Your task to perform on an android device: Go to wifi settings Image 0: 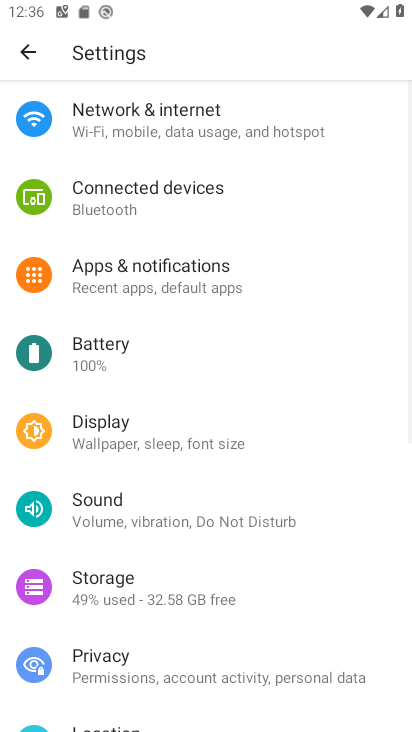
Step 0: press home button
Your task to perform on an android device: Go to wifi settings Image 1: 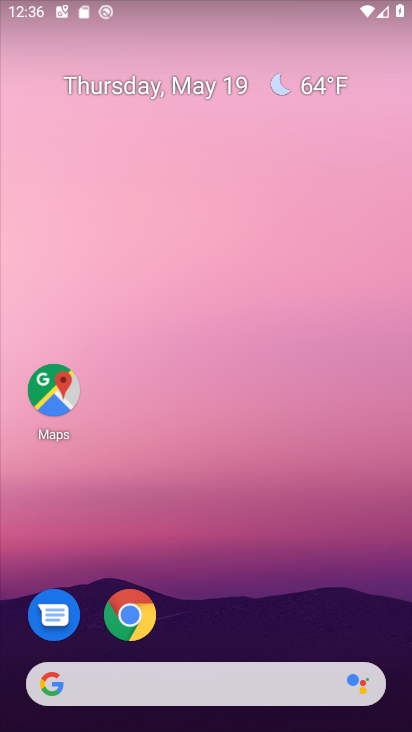
Step 1: drag from (199, 719) to (244, 245)
Your task to perform on an android device: Go to wifi settings Image 2: 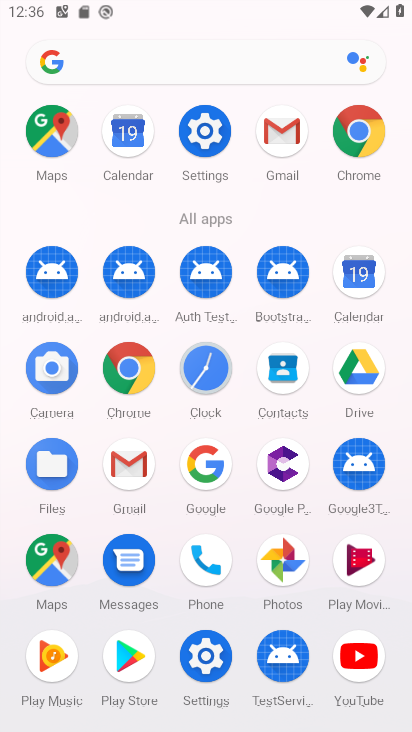
Step 2: click (205, 145)
Your task to perform on an android device: Go to wifi settings Image 3: 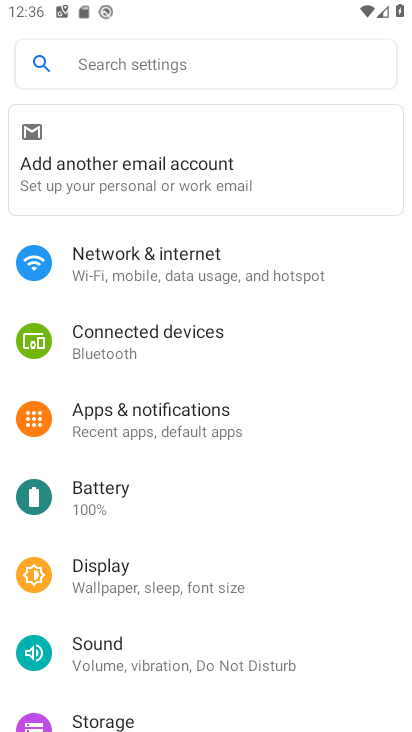
Step 3: click (135, 267)
Your task to perform on an android device: Go to wifi settings Image 4: 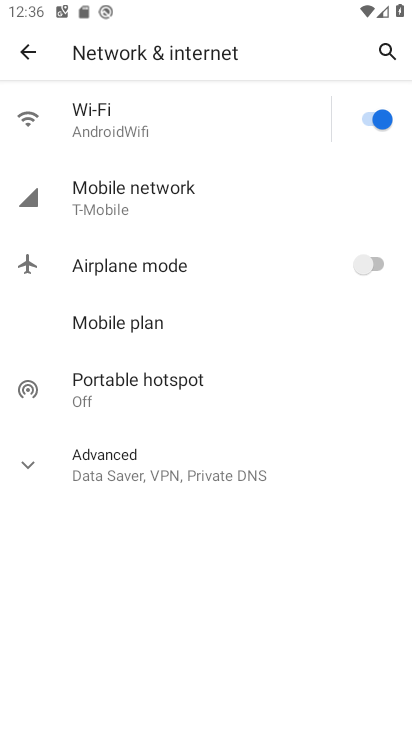
Step 4: click (152, 138)
Your task to perform on an android device: Go to wifi settings Image 5: 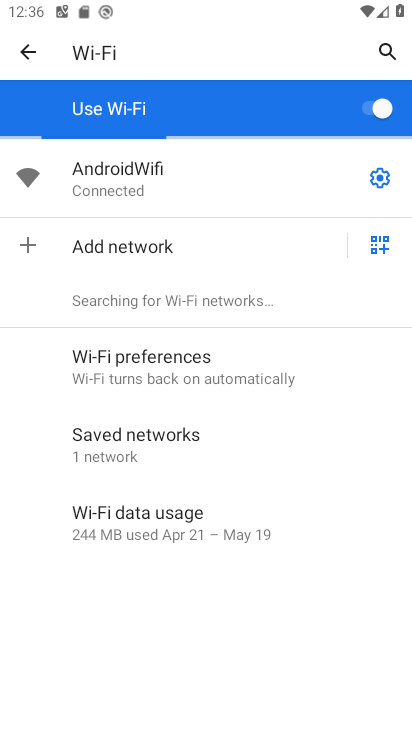
Step 5: task complete